Your task to perform on an android device: Go to Wikipedia Image 0: 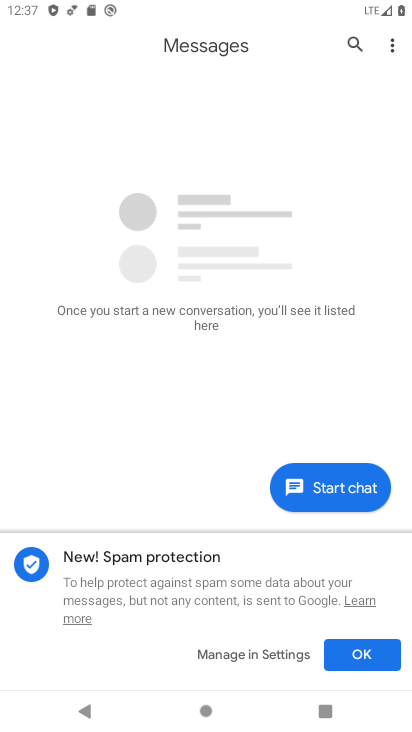
Step 0: press home button
Your task to perform on an android device: Go to Wikipedia Image 1: 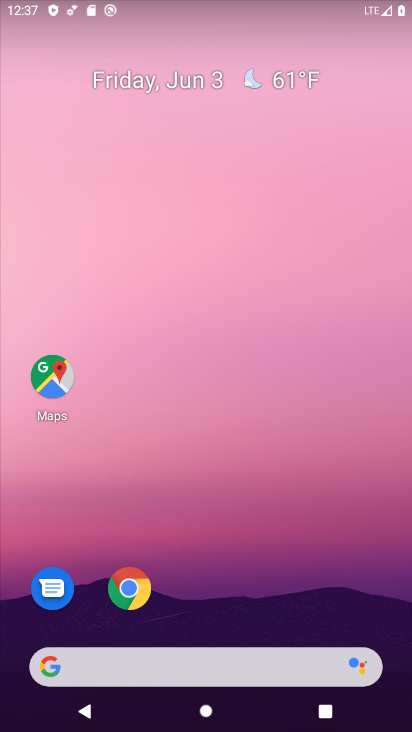
Step 1: drag from (276, 579) to (245, 111)
Your task to perform on an android device: Go to Wikipedia Image 2: 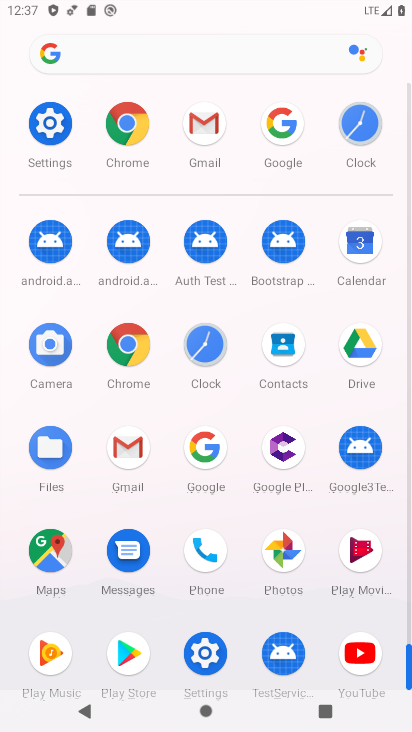
Step 2: click (146, 366)
Your task to perform on an android device: Go to Wikipedia Image 3: 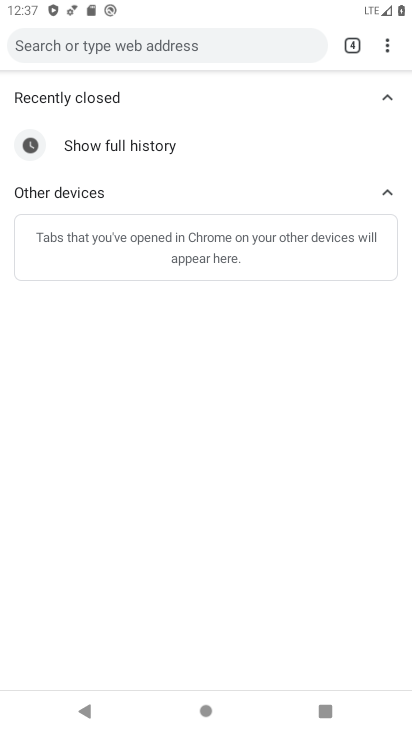
Step 3: press back button
Your task to perform on an android device: Go to Wikipedia Image 4: 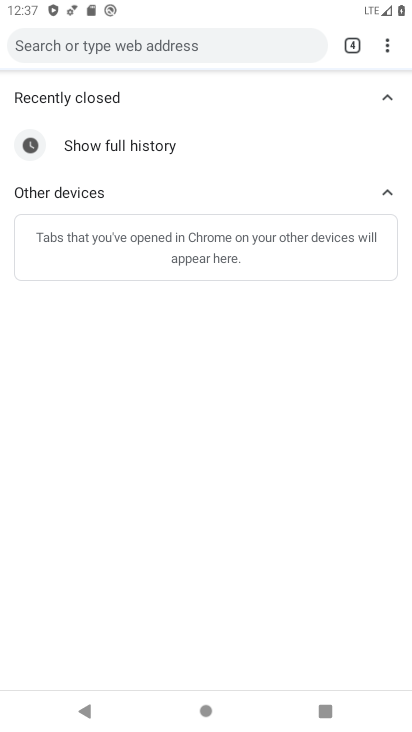
Step 4: press back button
Your task to perform on an android device: Go to Wikipedia Image 5: 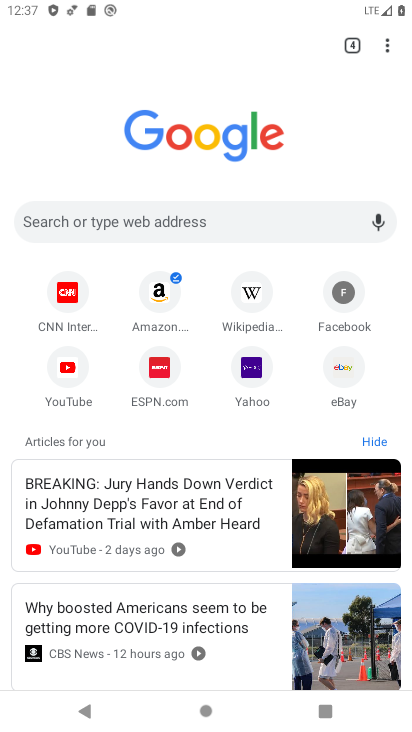
Step 5: click (262, 309)
Your task to perform on an android device: Go to Wikipedia Image 6: 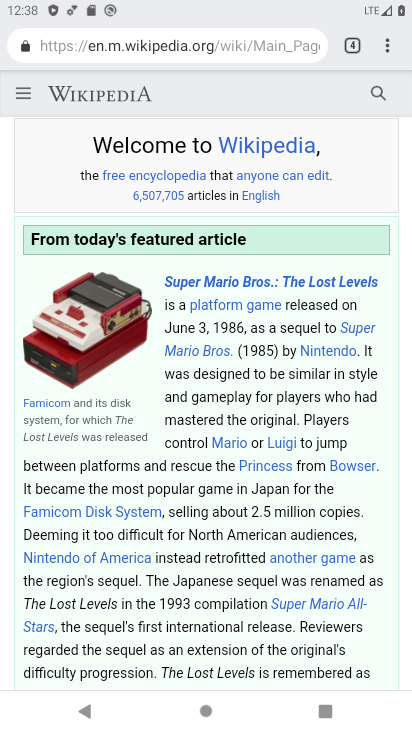
Step 6: task complete